Your task to perform on an android device: Clear the shopping cart on newegg. Search for "razer kraken" on newegg, select the first entry, add it to the cart, then select checkout. Image 0: 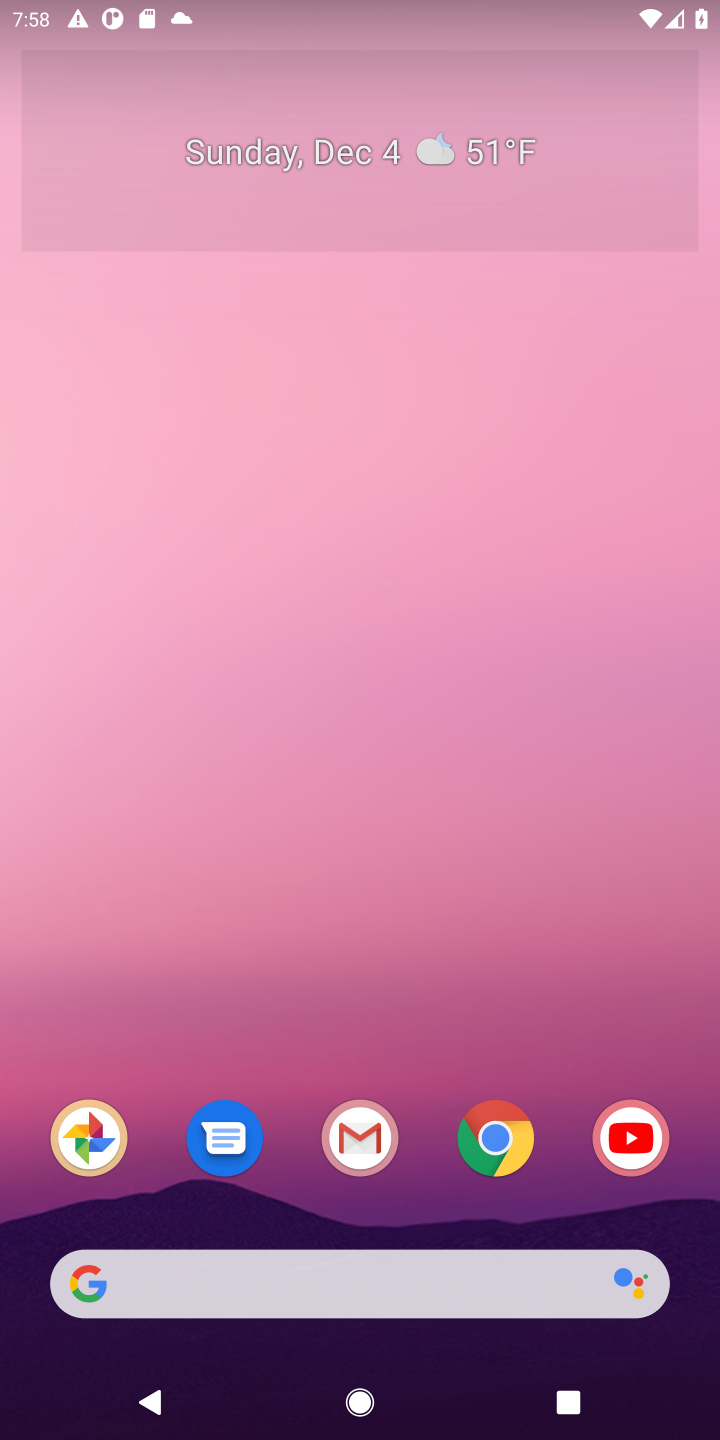
Step 0: click (481, 1155)
Your task to perform on an android device: Clear the shopping cart on newegg. Search for "razer kraken" on newegg, select the first entry, add it to the cart, then select checkout. Image 1: 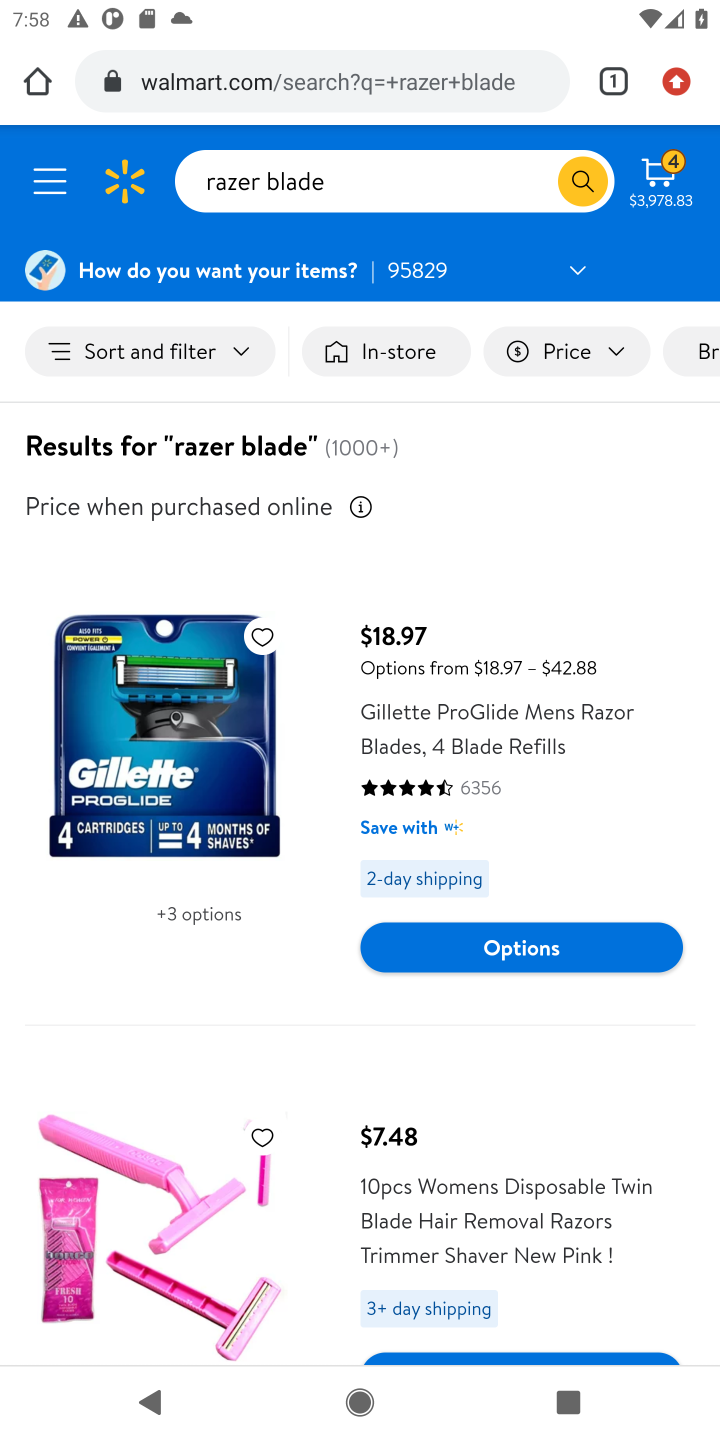
Step 1: click (425, 60)
Your task to perform on an android device: Clear the shopping cart on newegg. Search for "razer kraken" on newegg, select the first entry, add it to the cart, then select checkout. Image 2: 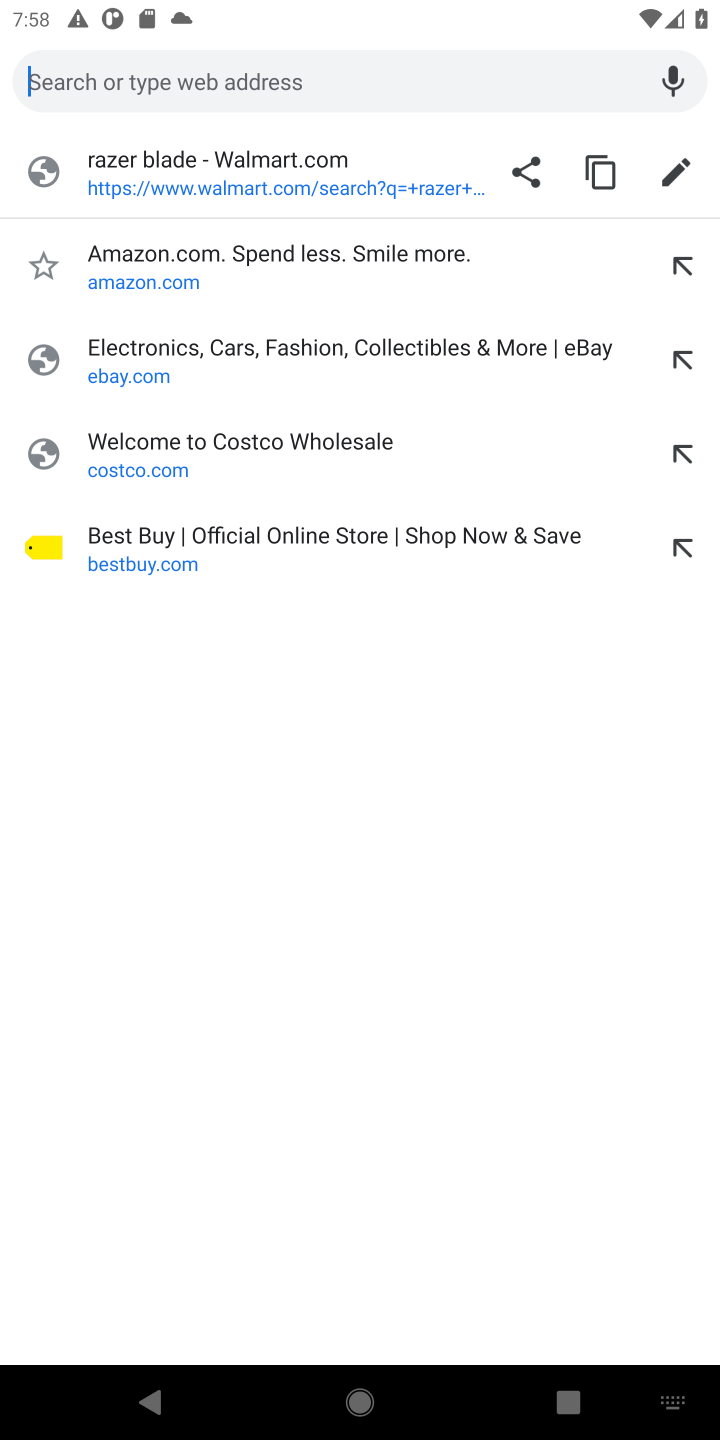
Step 2: type "newegg"
Your task to perform on an android device: Clear the shopping cart on newegg. Search for "razer kraken" on newegg, select the first entry, add it to the cart, then select checkout. Image 3: 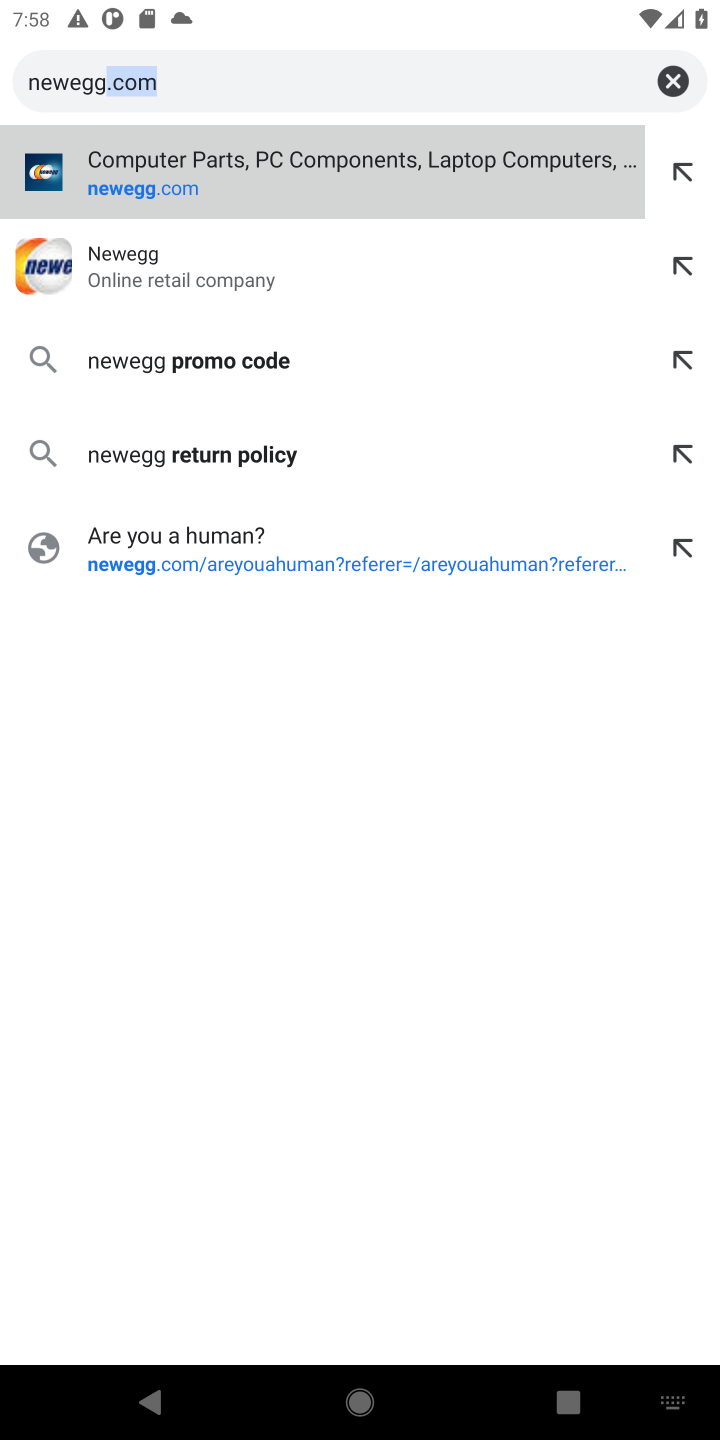
Step 3: press enter
Your task to perform on an android device: Clear the shopping cart on newegg. Search for "razer kraken" on newegg, select the first entry, add it to the cart, then select checkout. Image 4: 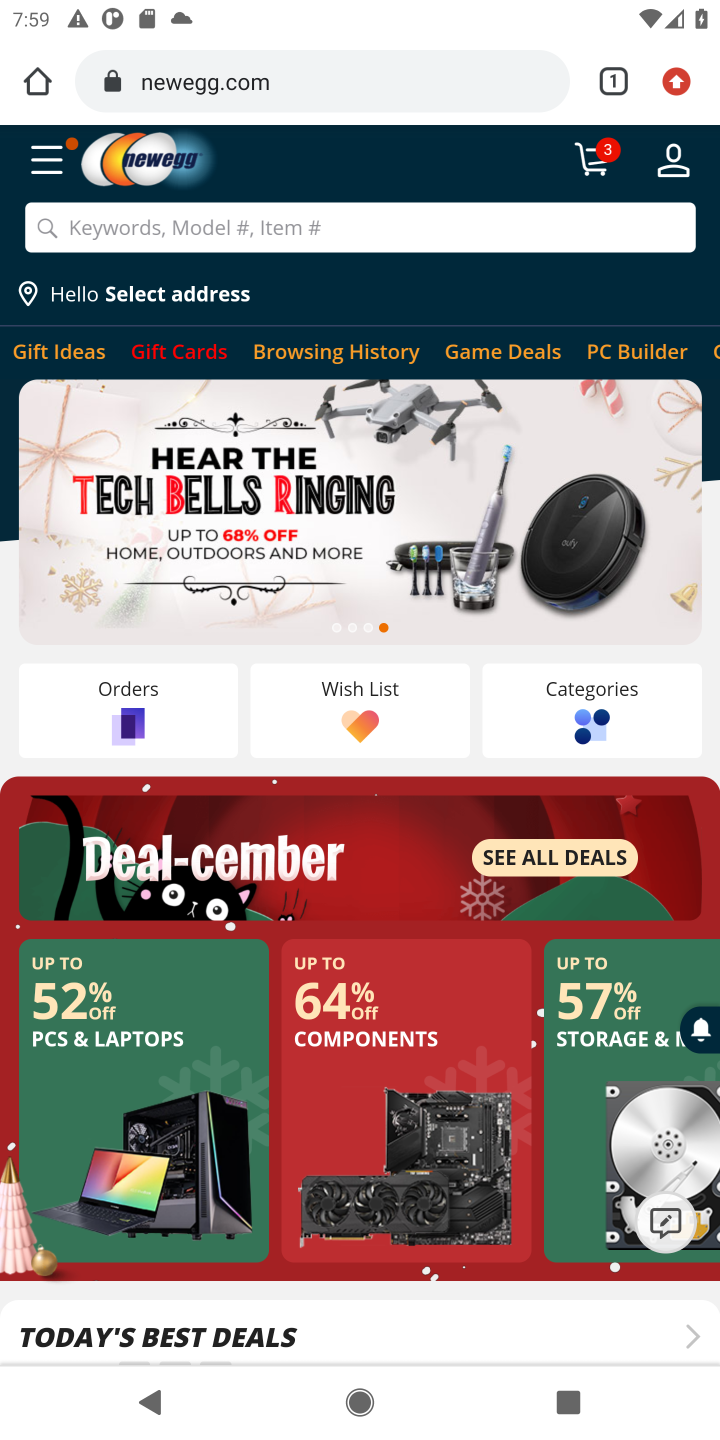
Step 4: click (599, 173)
Your task to perform on an android device: Clear the shopping cart on newegg. Search for "razer kraken" on newegg, select the first entry, add it to the cart, then select checkout. Image 5: 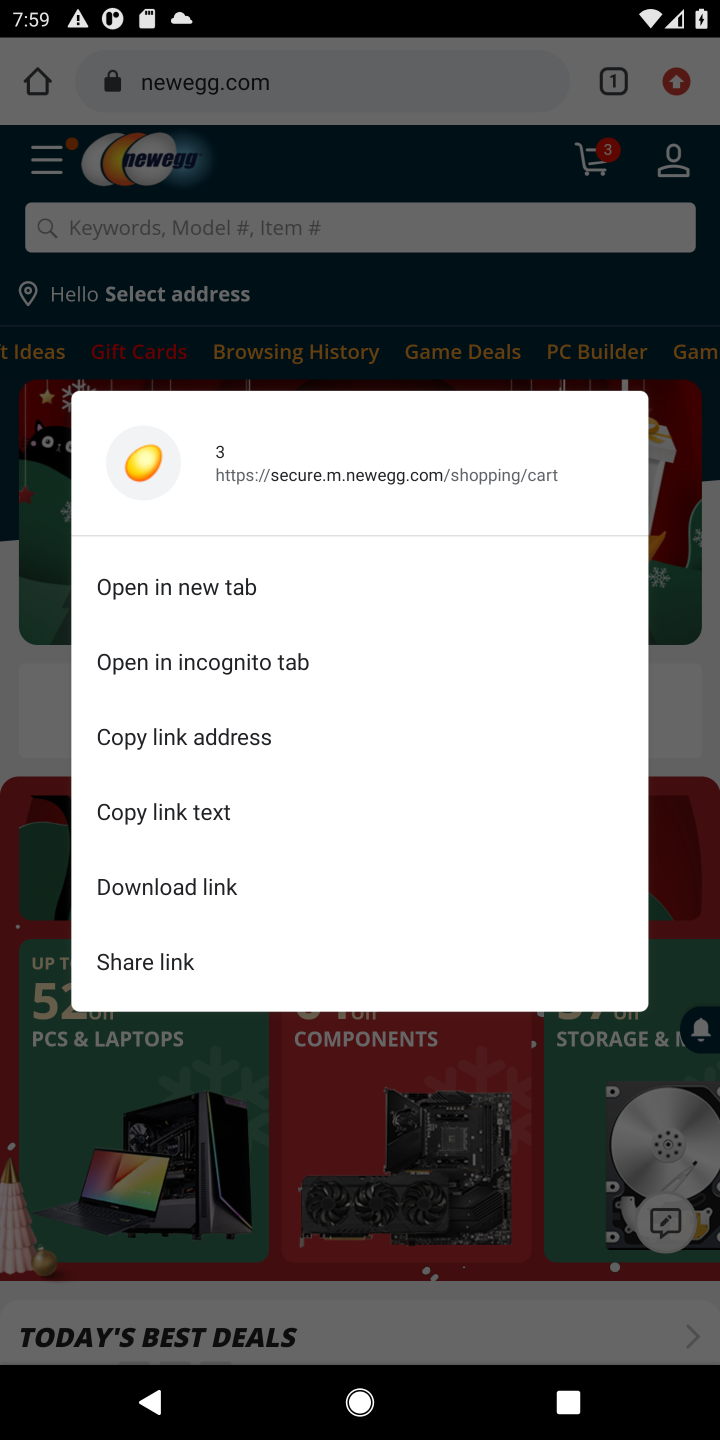
Step 5: click (600, 172)
Your task to perform on an android device: Clear the shopping cart on newegg. Search for "razer kraken" on newegg, select the first entry, add it to the cart, then select checkout. Image 6: 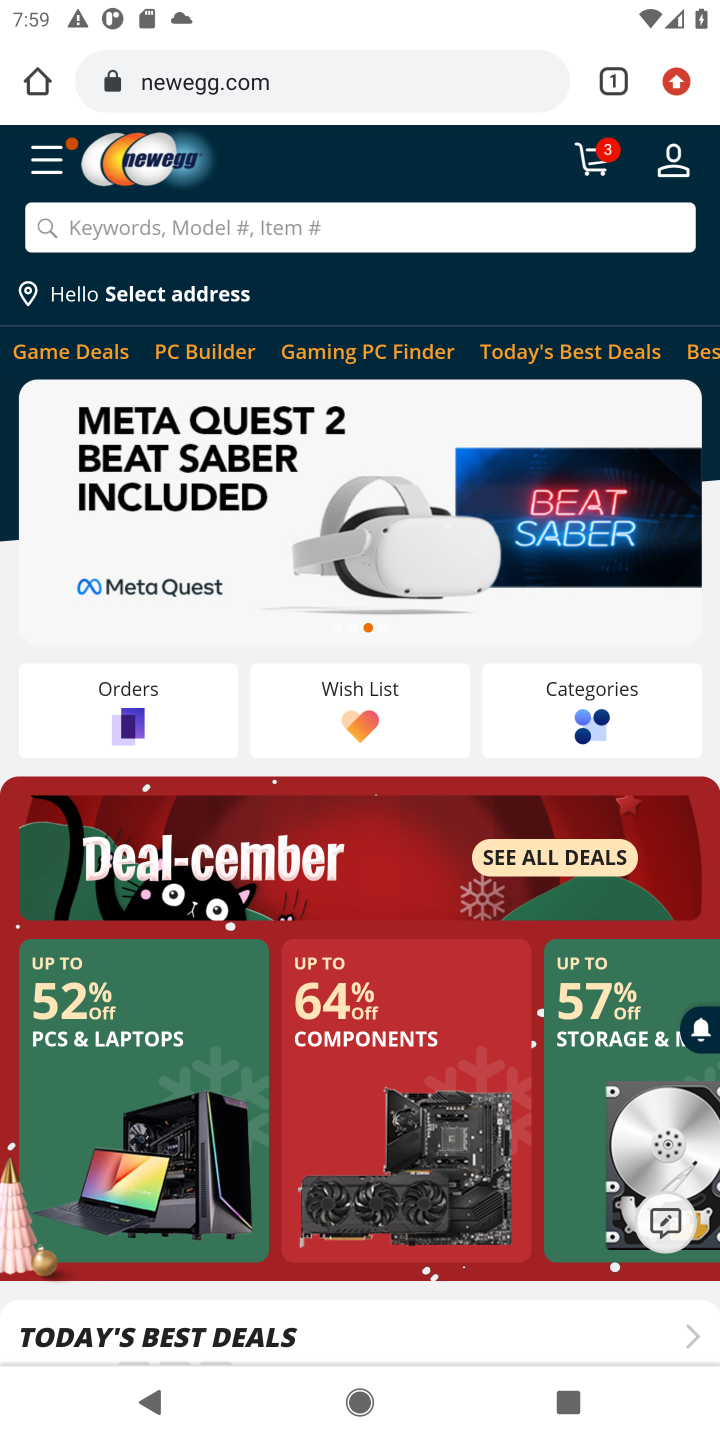
Step 6: click (593, 171)
Your task to perform on an android device: Clear the shopping cart on newegg. Search for "razer kraken" on newegg, select the first entry, add it to the cart, then select checkout. Image 7: 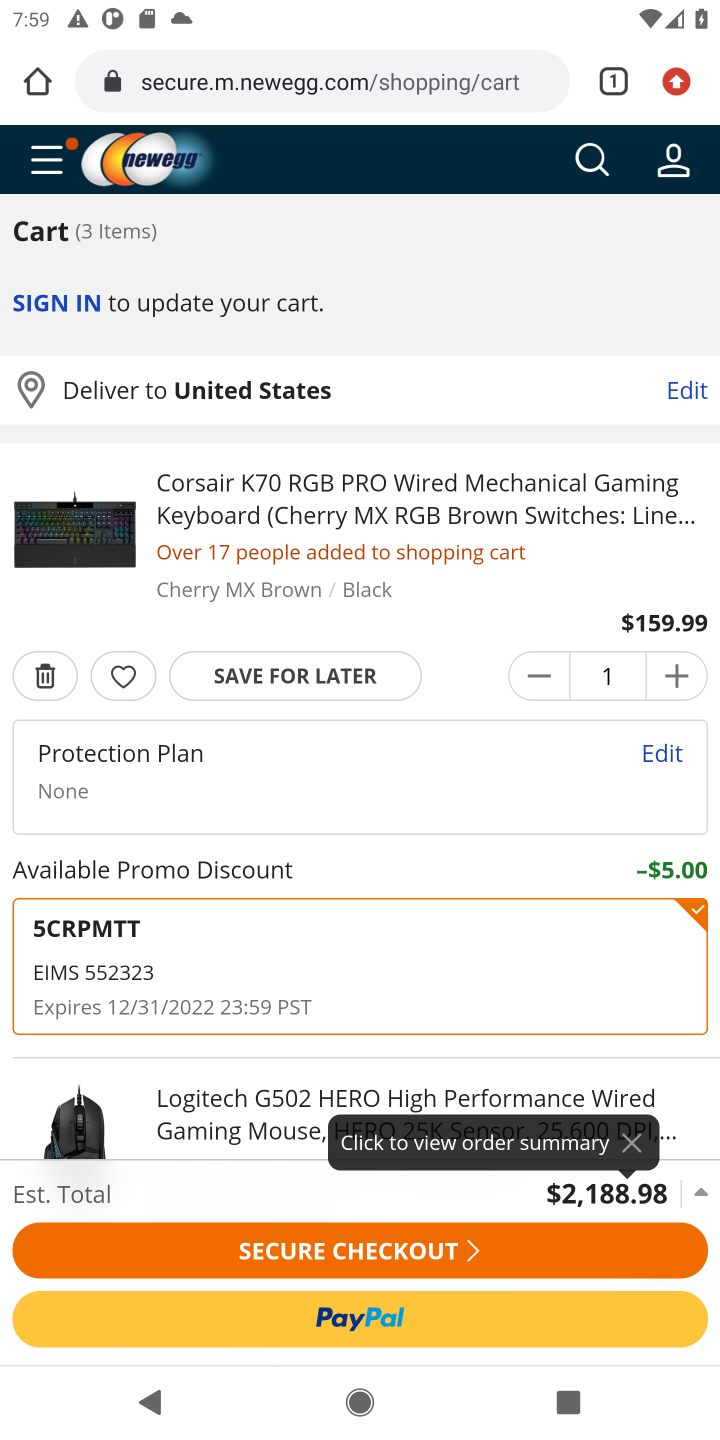
Step 7: click (47, 684)
Your task to perform on an android device: Clear the shopping cart on newegg. Search for "razer kraken" on newegg, select the first entry, add it to the cart, then select checkout. Image 8: 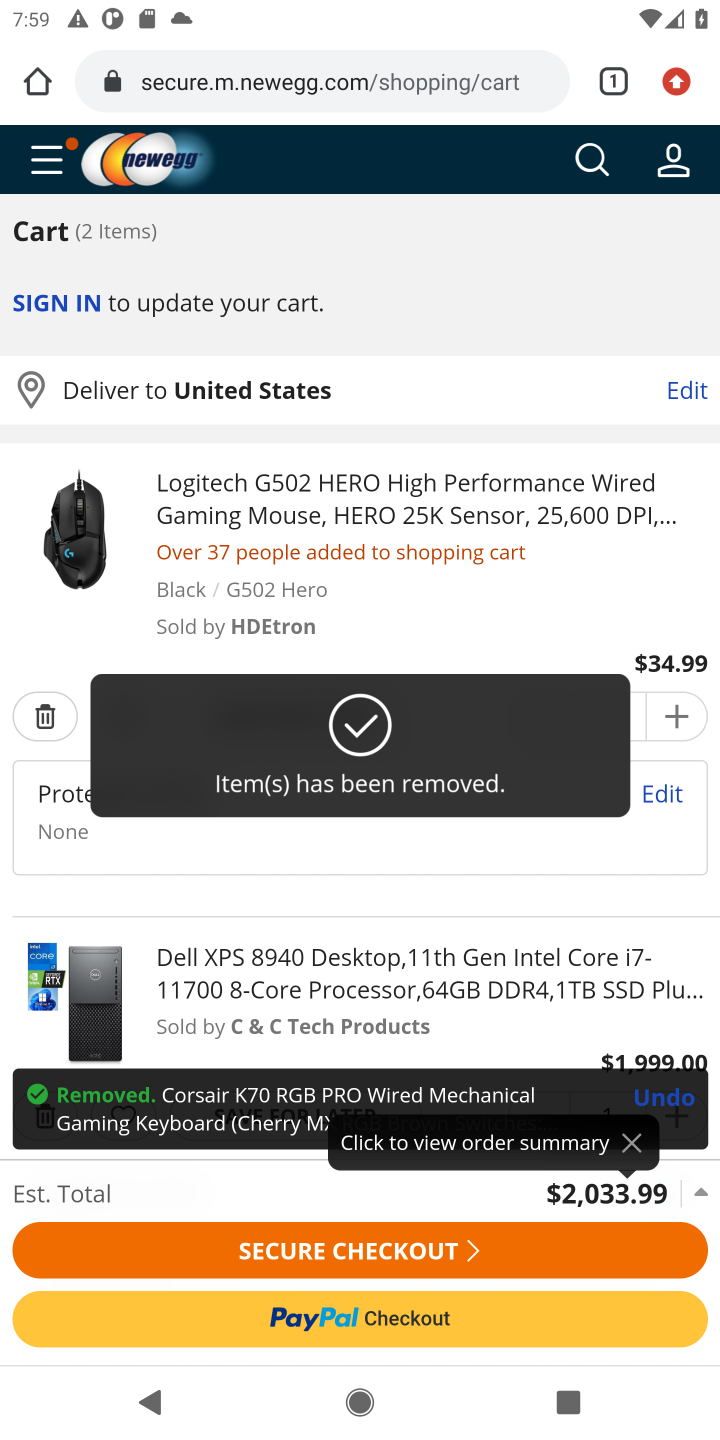
Step 8: click (44, 710)
Your task to perform on an android device: Clear the shopping cart on newegg. Search for "razer kraken" on newegg, select the first entry, add it to the cart, then select checkout. Image 9: 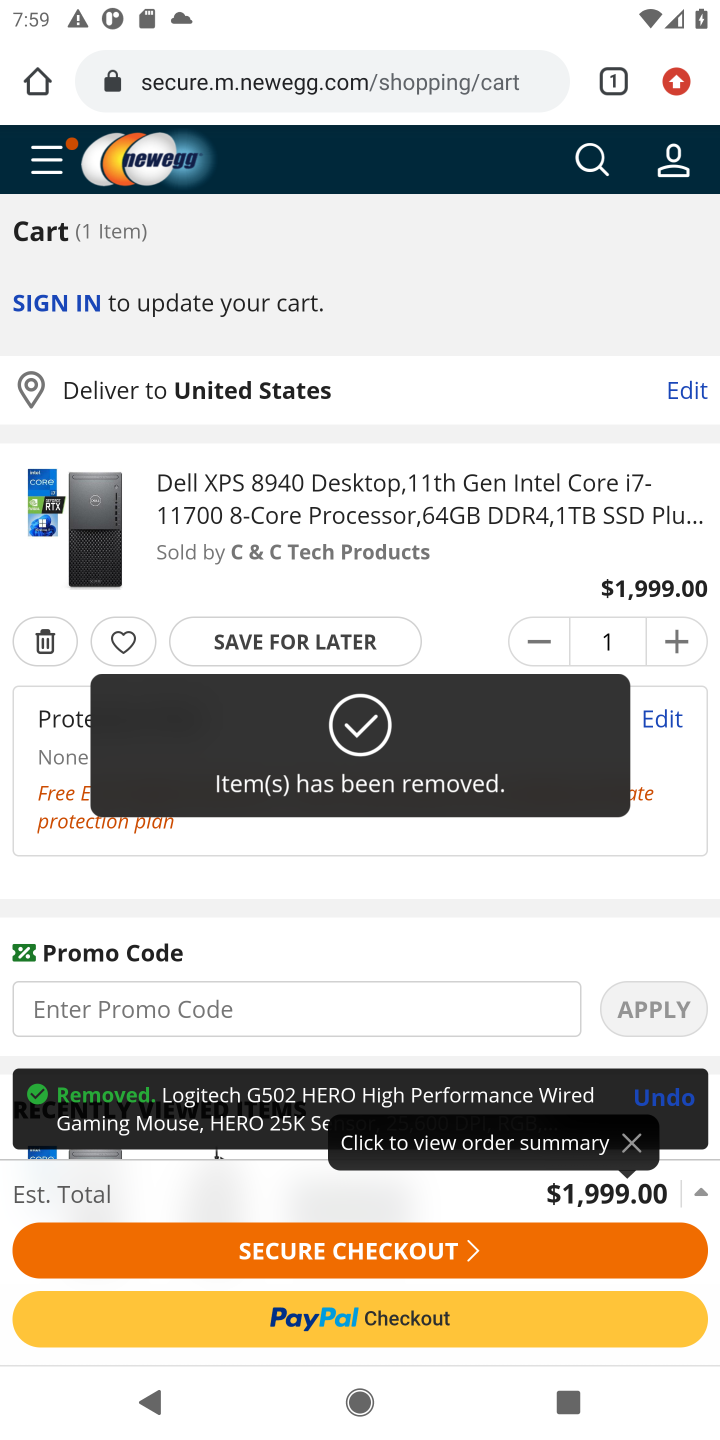
Step 9: click (50, 646)
Your task to perform on an android device: Clear the shopping cart on newegg. Search for "razer kraken" on newegg, select the first entry, add it to the cart, then select checkout. Image 10: 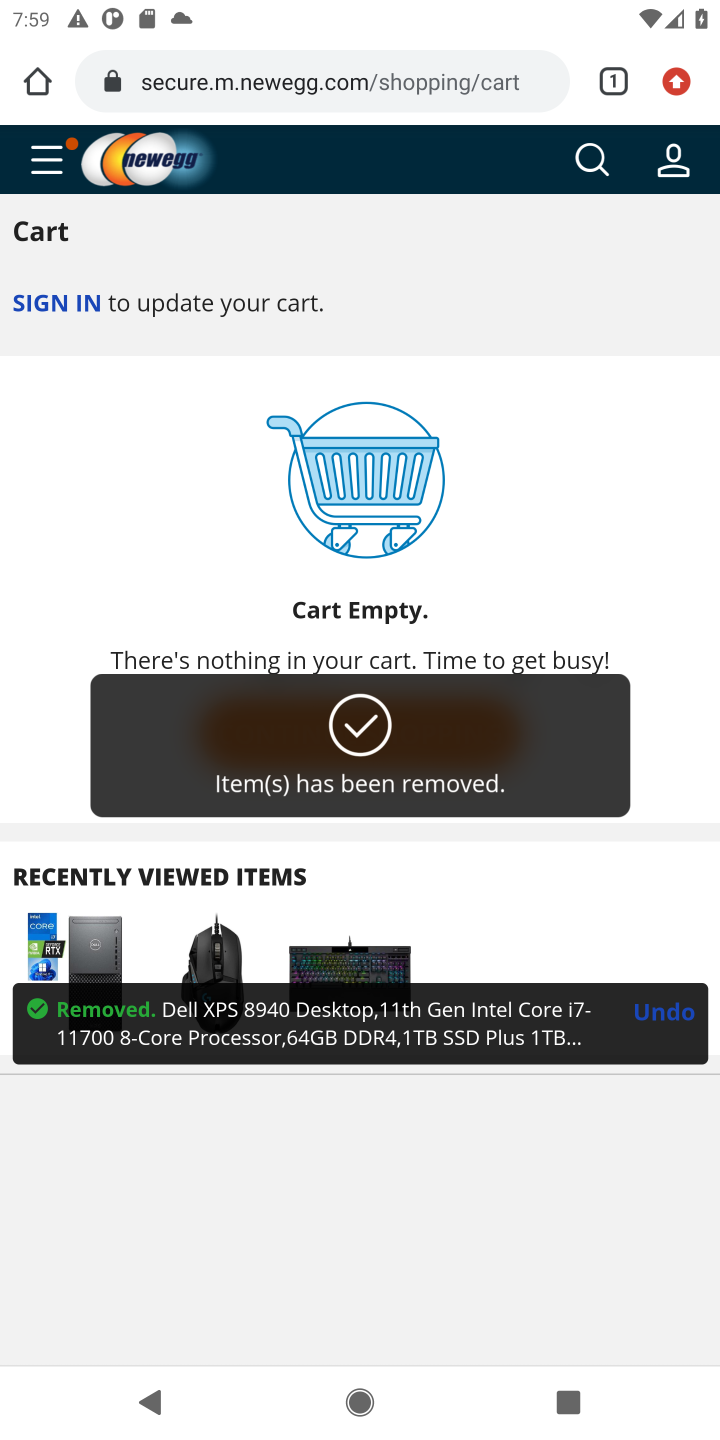
Step 10: click (589, 149)
Your task to perform on an android device: Clear the shopping cart on newegg. Search for "razer kraken" on newegg, select the first entry, add it to the cart, then select checkout. Image 11: 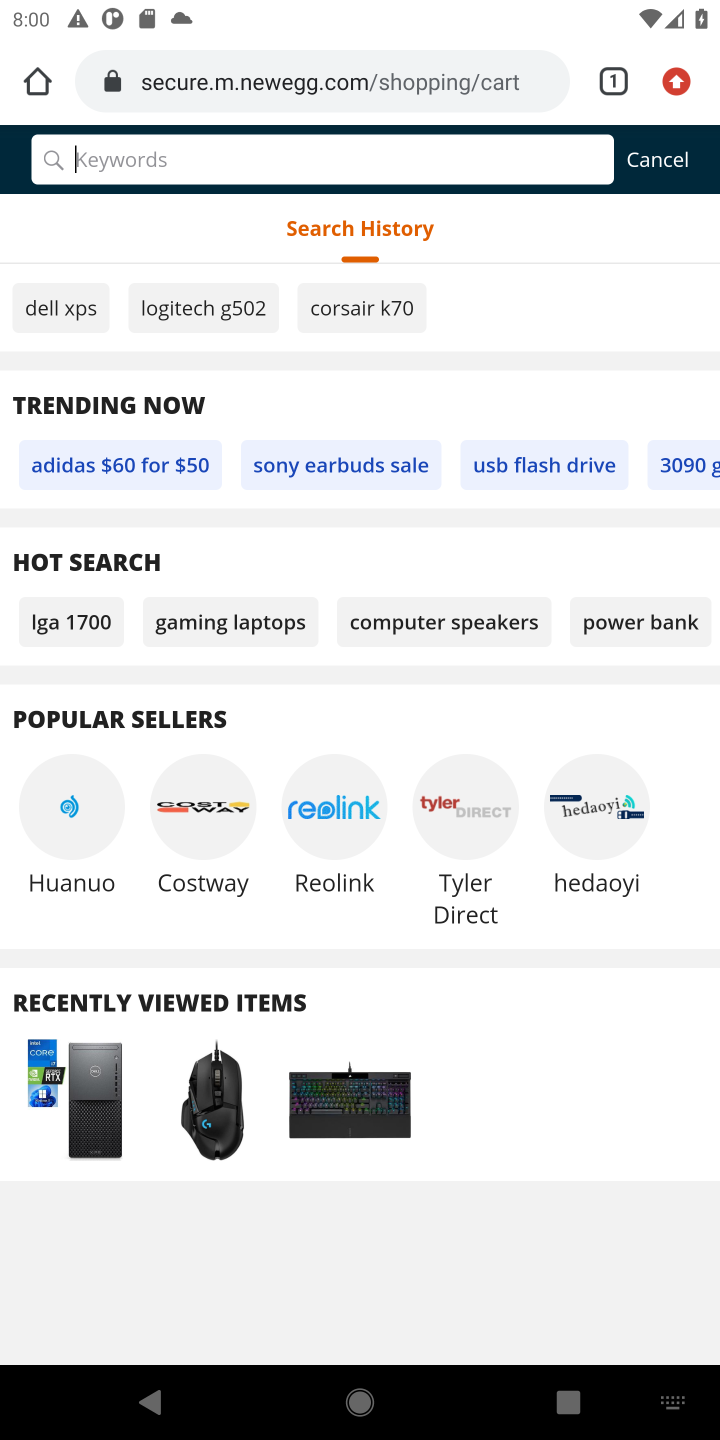
Step 11: type "razer kraken"
Your task to perform on an android device: Clear the shopping cart on newegg. Search for "razer kraken" on newegg, select the first entry, add it to the cart, then select checkout. Image 12: 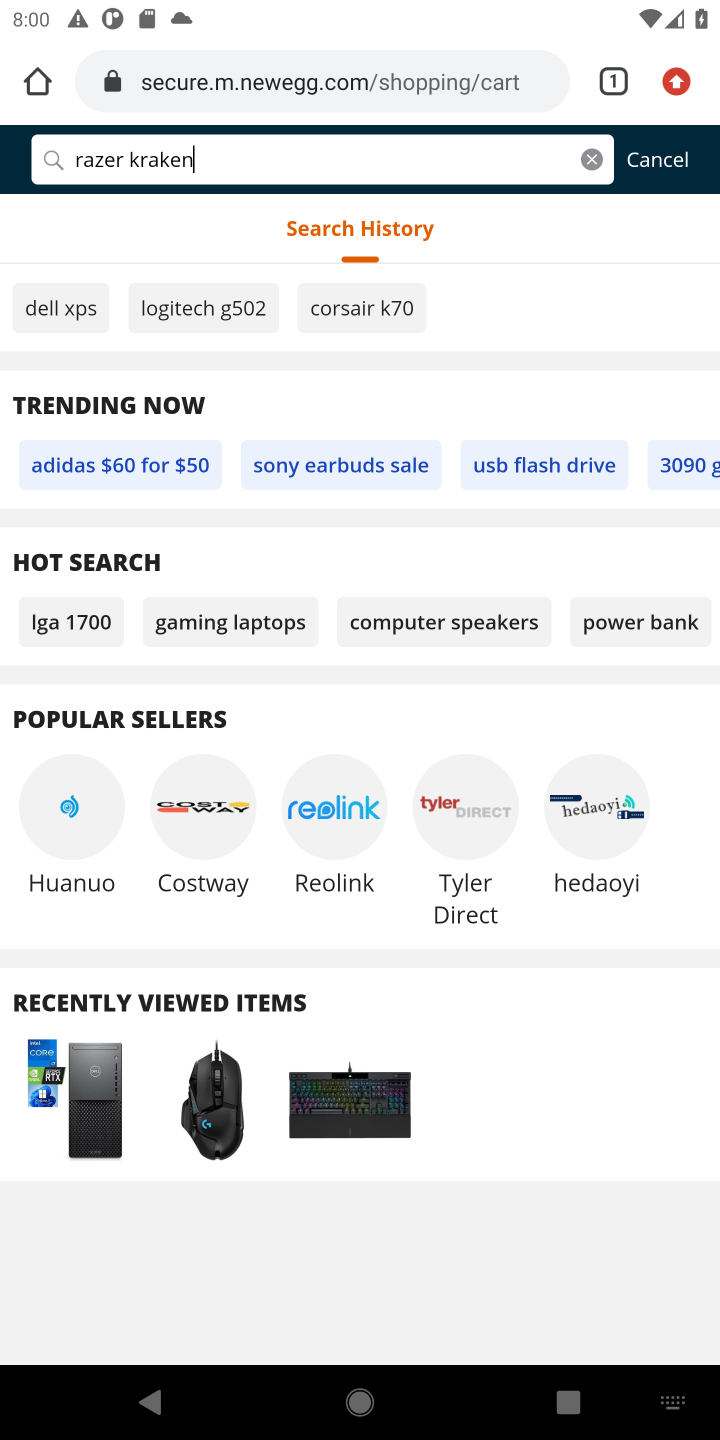
Step 12: press enter
Your task to perform on an android device: Clear the shopping cart on newegg. Search for "razer kraken" on newegg, select the first entry, add it to the cart, then select checkout. Image 13: 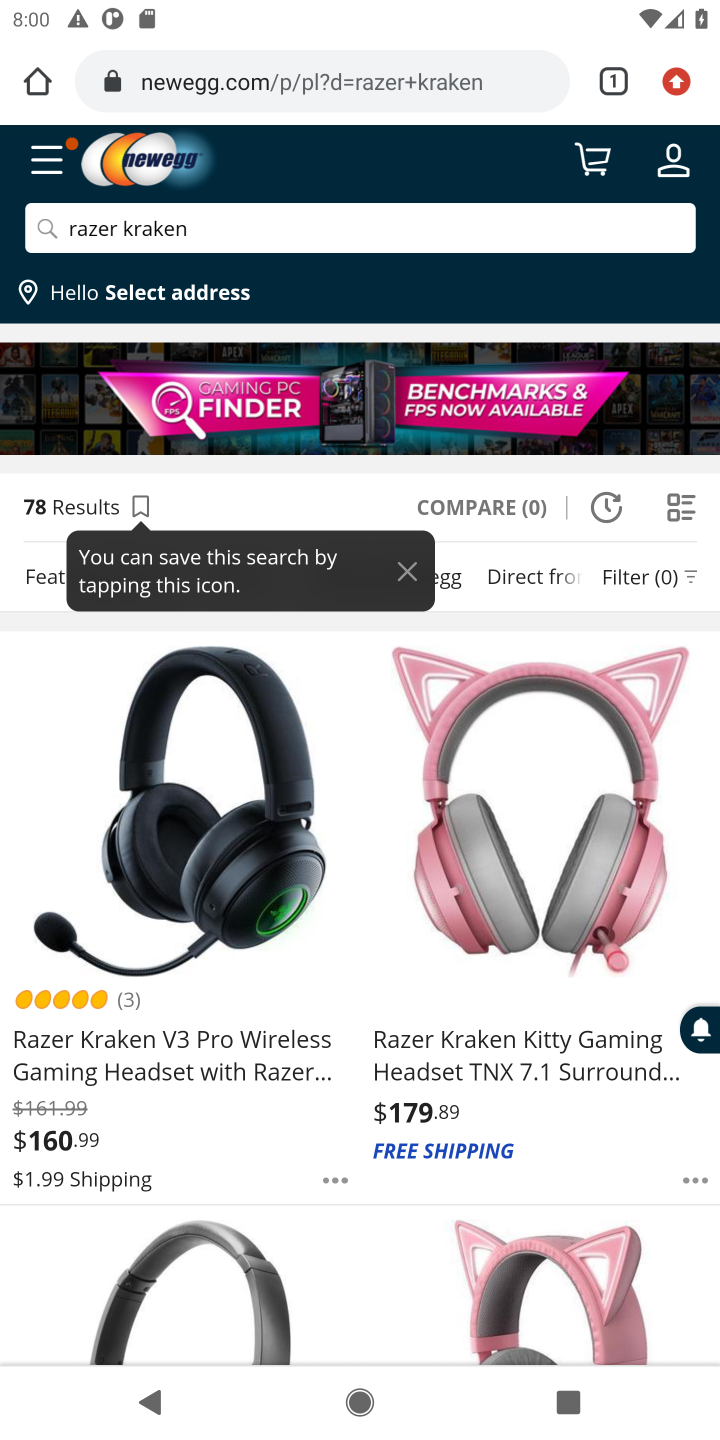
Step 13: click (215, 773)
Your task to perform on an android device: Clear the shopping cart on newegg. Search for "razer kraken" on newegg, select the first entry, add it to the cart, then select checkout. Image 14: 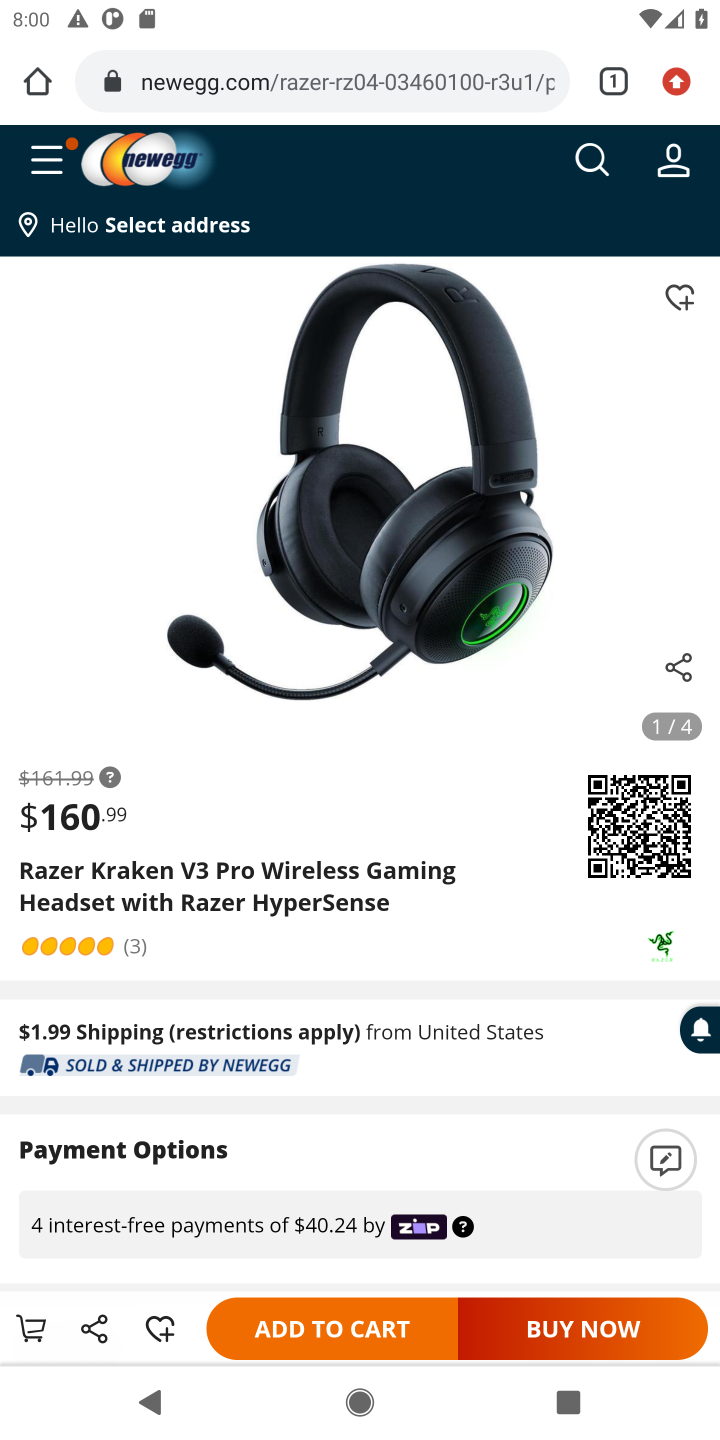
Step 14: click (373, 1321)
Your task to perform on an android device: Clear the shopping cart on newegg. Search for "razer kraken" on newegg, select the first entry, add it to the cart, then select checkout. Image 15: 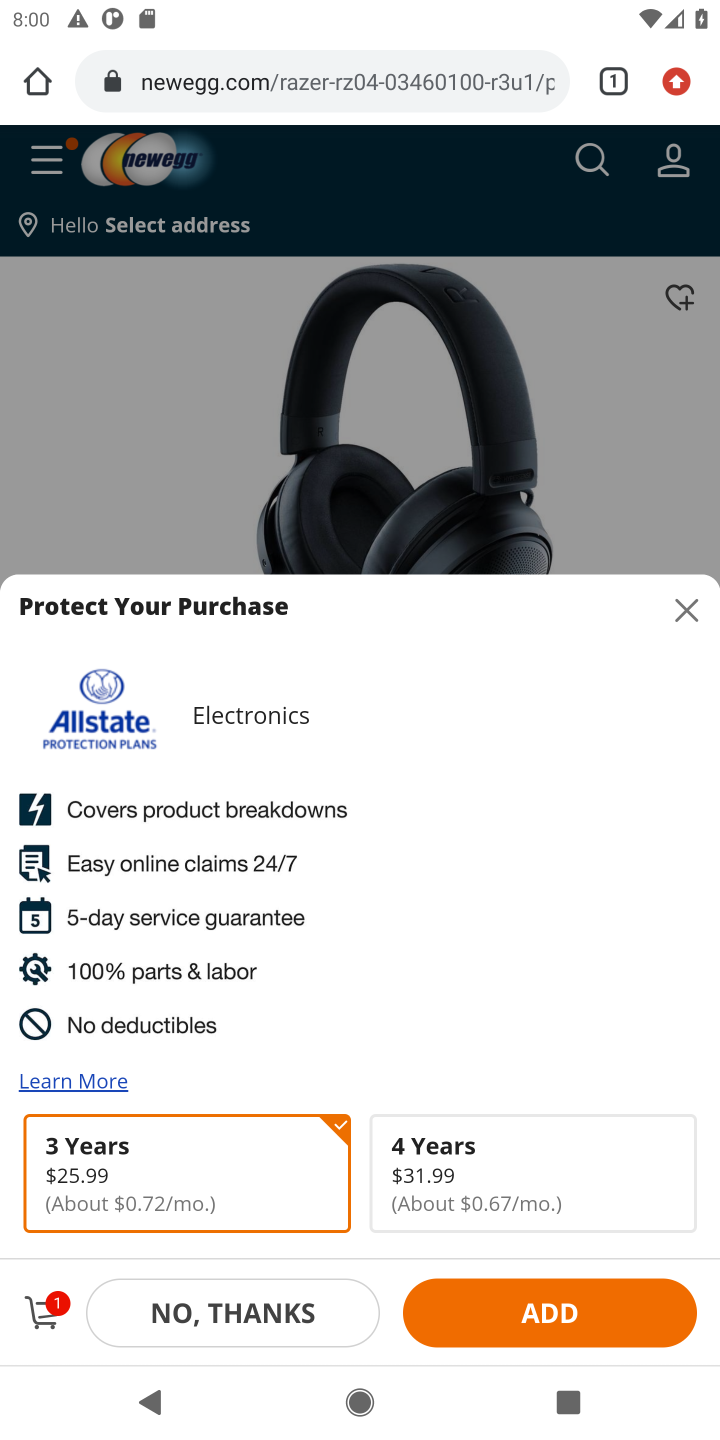
Step 15: click (30, 1316)
Your task to perform on an android device: Clear the shopping cart on newegg. Search for "razer kraken" on newegg, select the first entry, add it to the cart, then select checkout. Image 16: 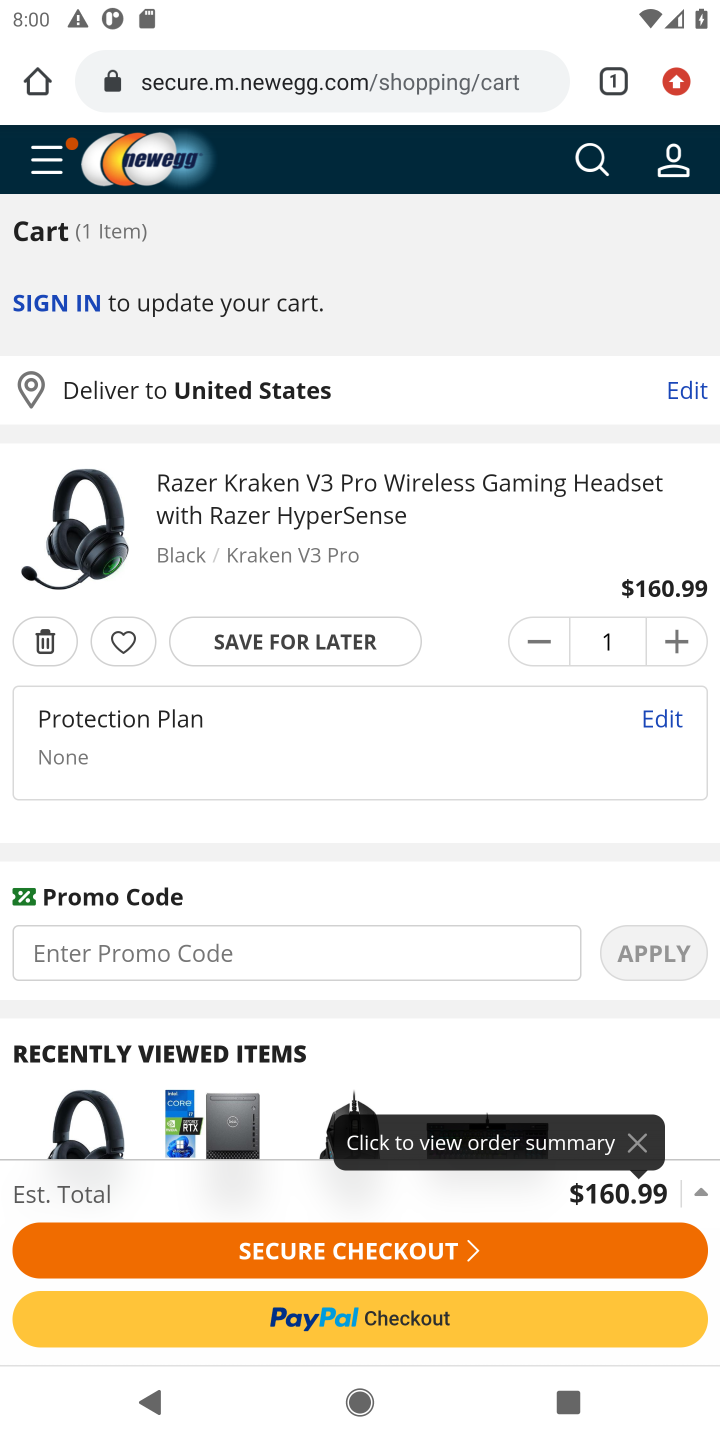
Step 16: drag from (375, 1114) to (383, 1293)
Your task to perform on an android device: Clear the shopping cart on newegg. Search for "razer kraken" on newegg, select the first entry, add it to the cart, then select checkout. Image 17: 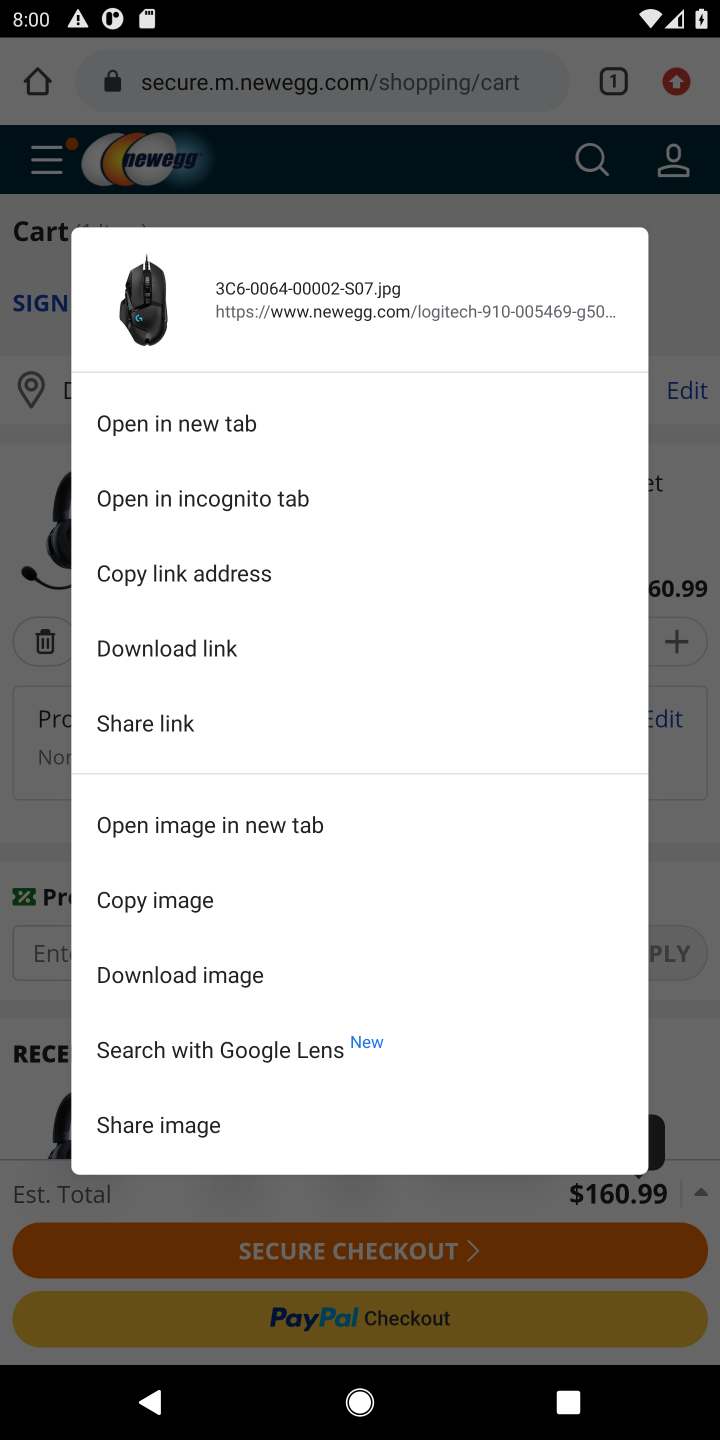
Step 17: click (715, 955)
Your task to perform on an android device: Clear the shopping cart on newegg. Search for "razer kraken" on newegg, select the first entry, add it to the cart, then select checkout. Image 18: 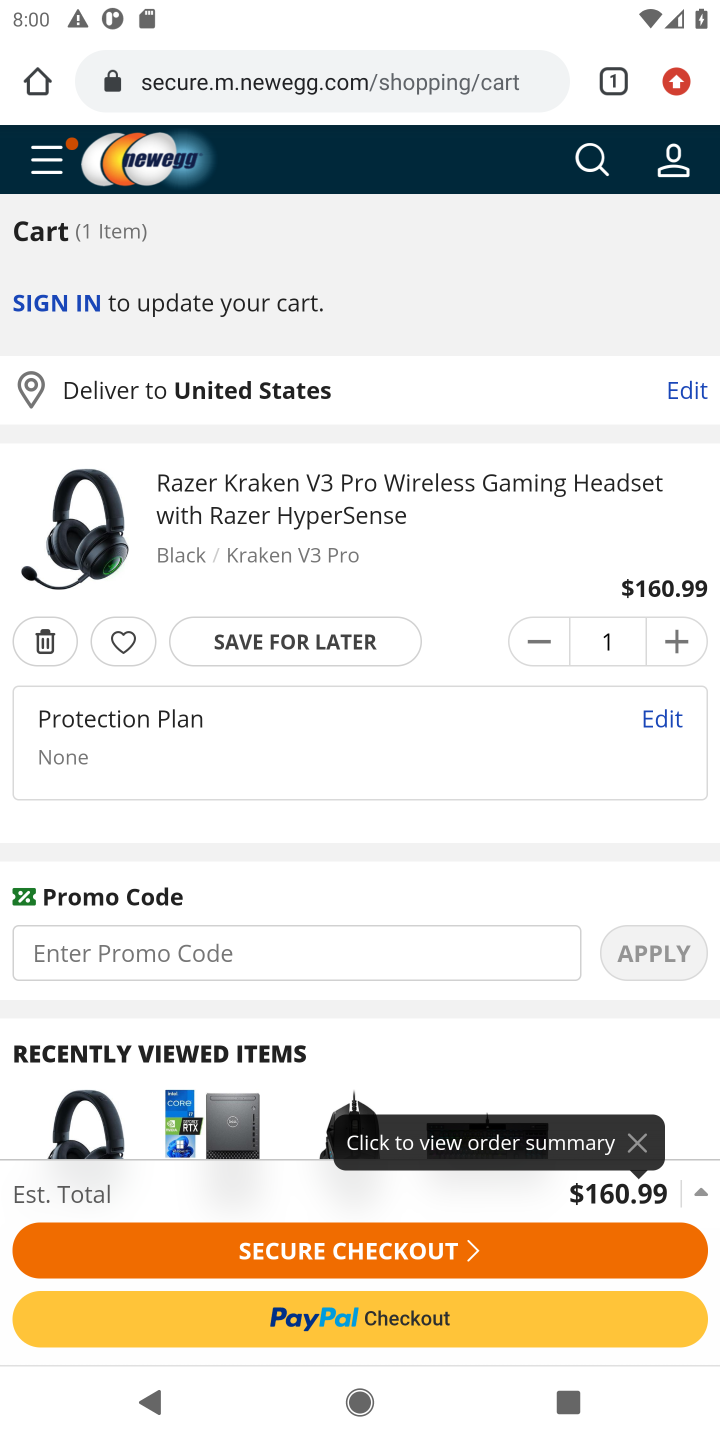
Step 18: click (359, 1254)
Your task to perform on an android device: Clear the shopping cart on newegg. Search for "razer kraken" on newegg, select the first entry, add it to the cart, then select checkout. Image 19: 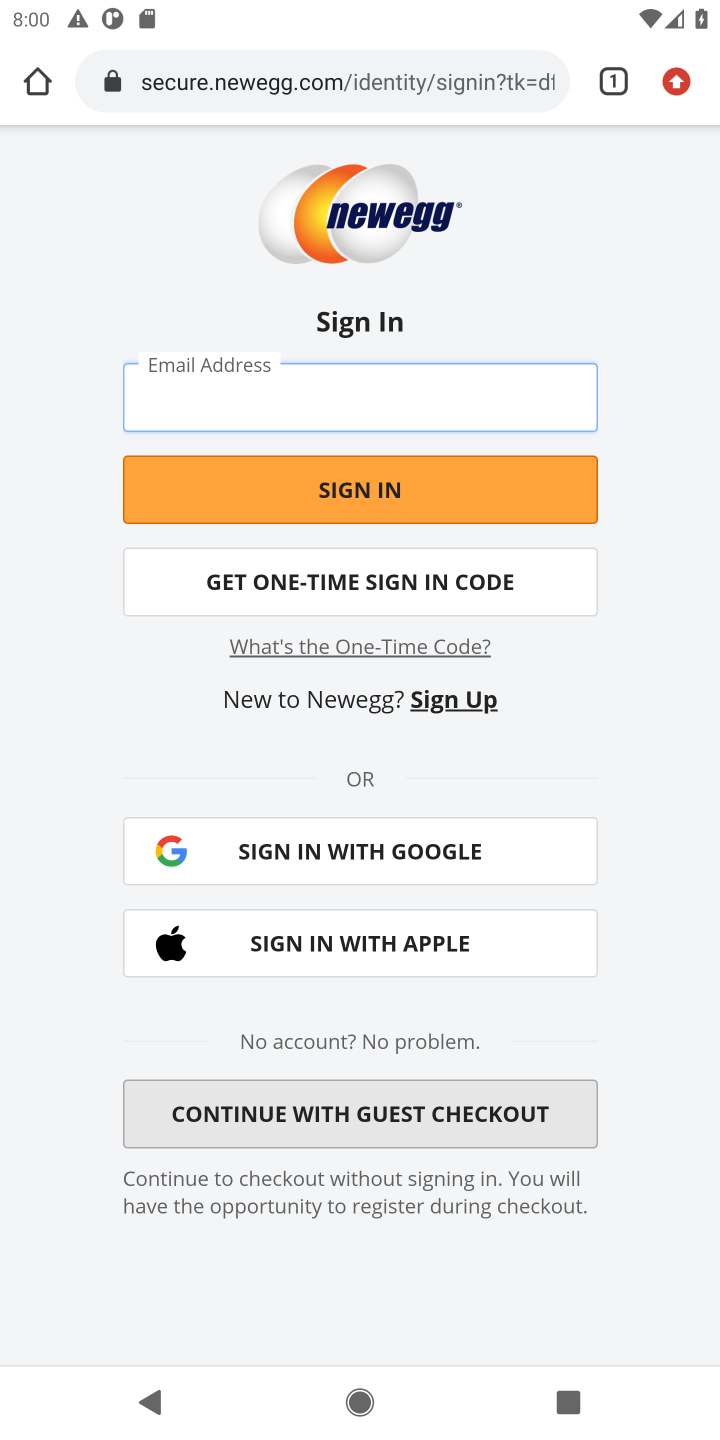
Step 19: task complete